Your task to perform on an android device: see sites visited before in the chrome app Image 0: 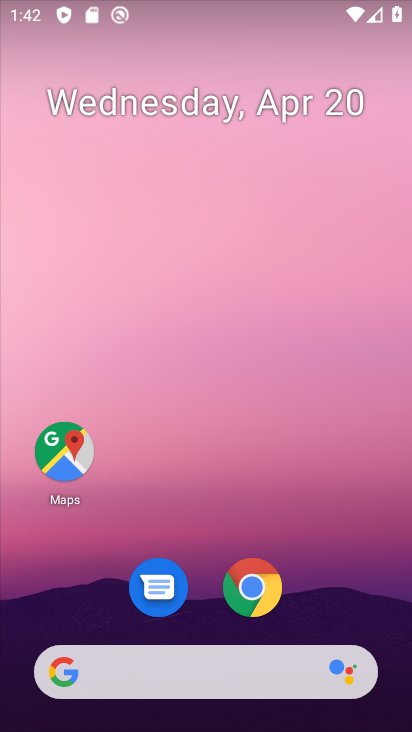
Step 0: drag from (327, 606) to (303, 247)
Your task to perform on an android device: see sites visited before in the chrome app Image 1: 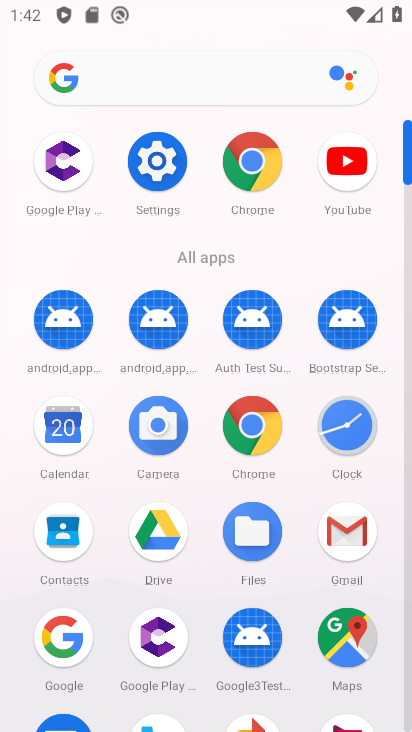
Step 1: click (263, 163)
Your task to perform on an android device: see sites visited before in the chrome app Image 2: 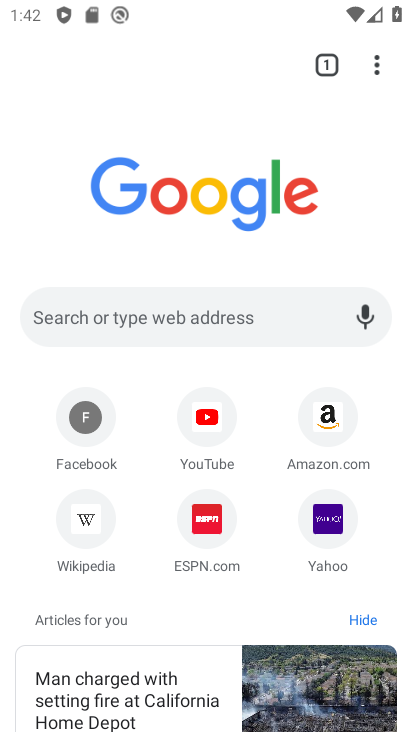
Step 2: click (374, 87)
Your task to perform on an android device: see sites visited before in the chrome app Image 3: 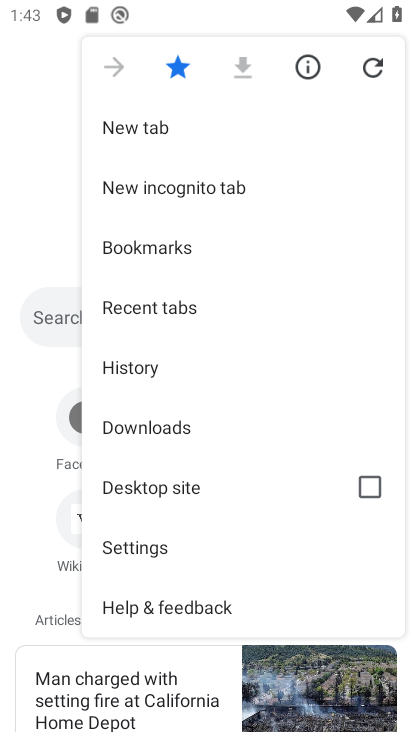
Step 3: click (263, 352)
Your task to perform on an android device: see sites visited before in the chrome app Image 4: 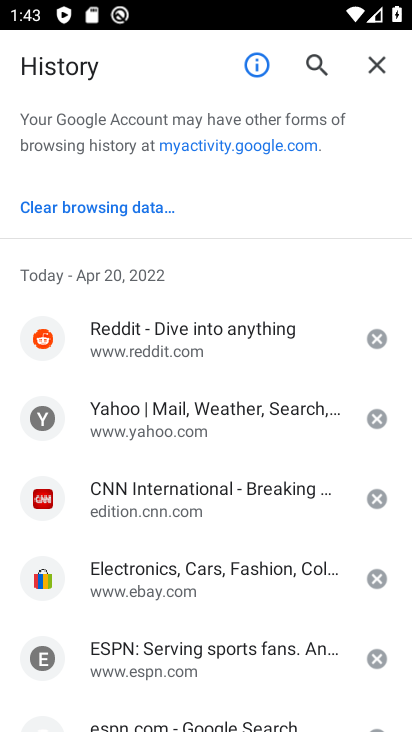
Step 4: task complete